Your task to perform on an android device: add a contact Image 0: 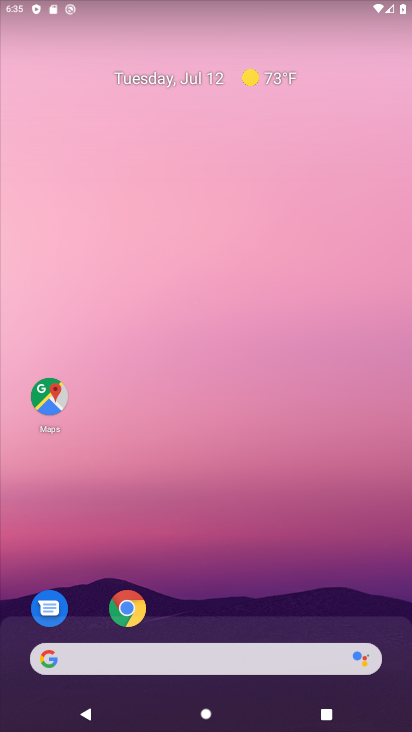
Step 0: drag from (189, 446) to (206, 145)
Your task to perform on an android device: add a contact Image 1: 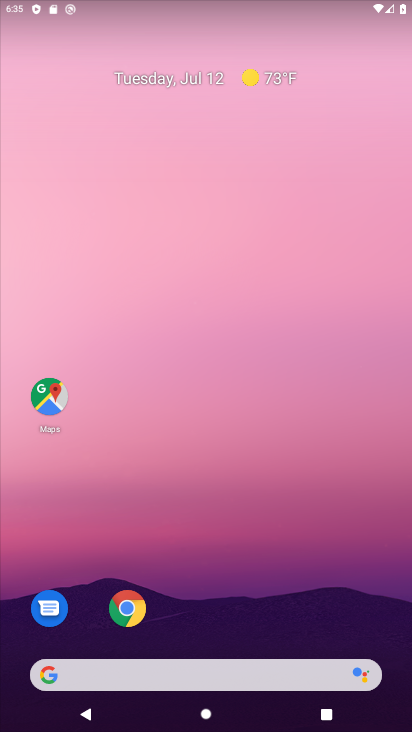
Step 1: drag from (187, 483) to (207, 101)
Your task to perform on an android device: add a contact Image 2: 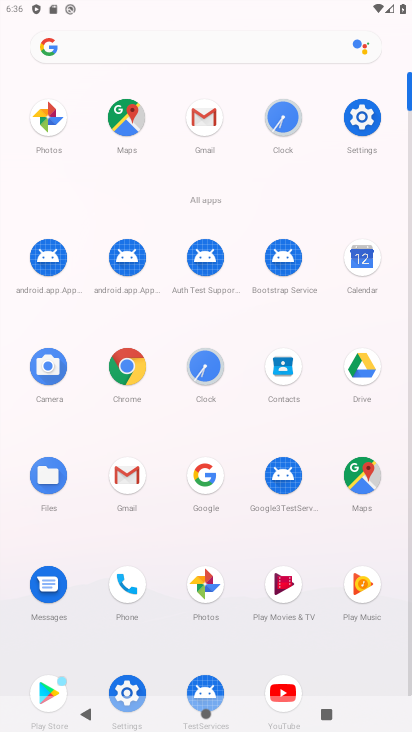
Step 2: click (276, 382)
Your task to perform on an android device: add a contact Image 3: 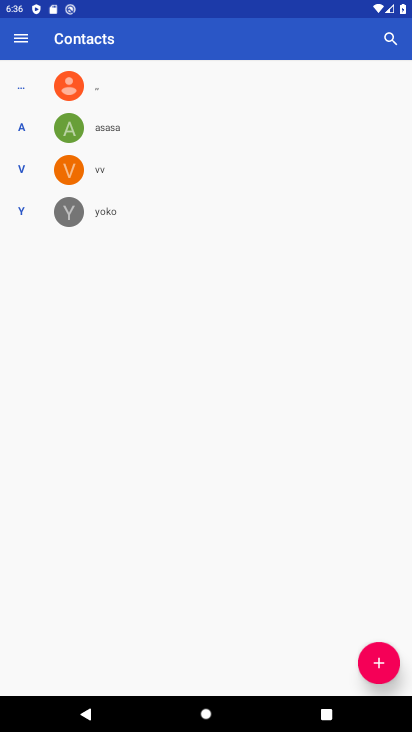
Step 3: click (382, 665)
Your task to perform on an android device: add a contact Image 4: 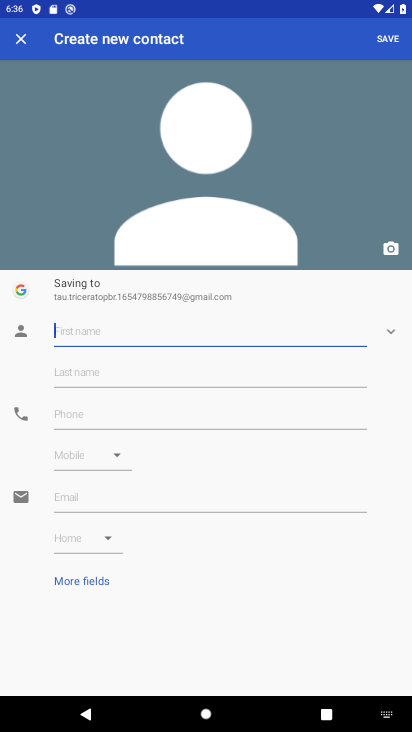
Step 4: type "Ravi"
Your task to perform on an android device: add a contact Image 5: 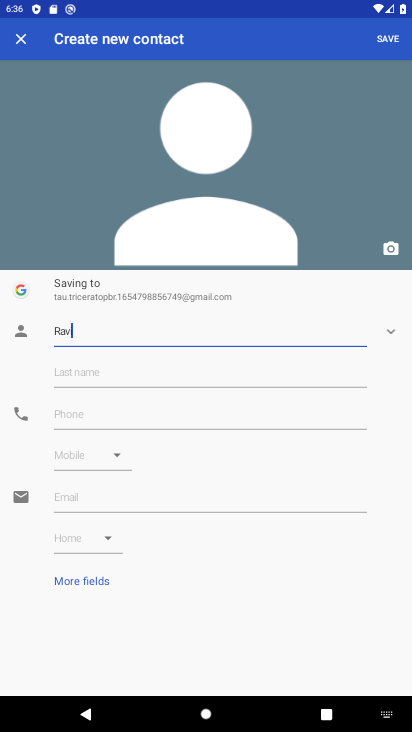
Step 5: click (233, 406)
Your task to perform on an android device: add a contact Image 6: 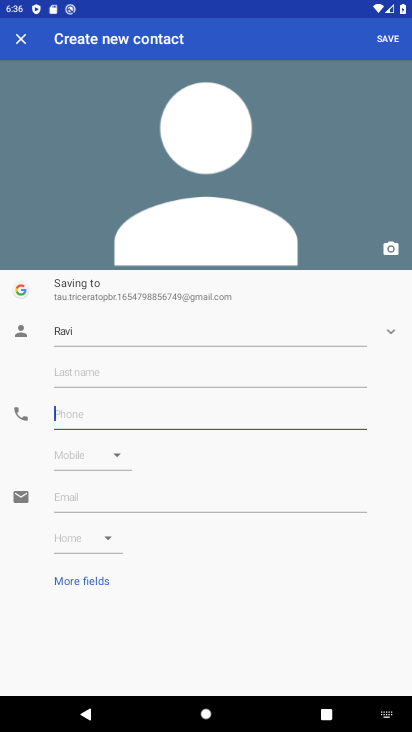
Step 6: type "9999000098"
Your task to perform on an android device: add a contact Image 7: 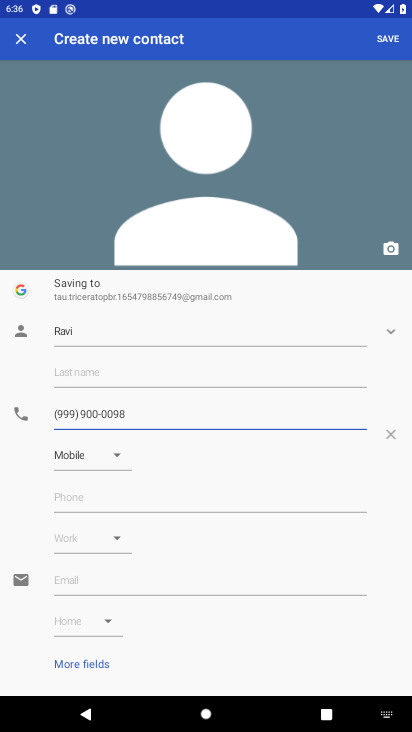
Step 7: click (390, 38)
Your task to perform on an android device: add a contact Image 8: 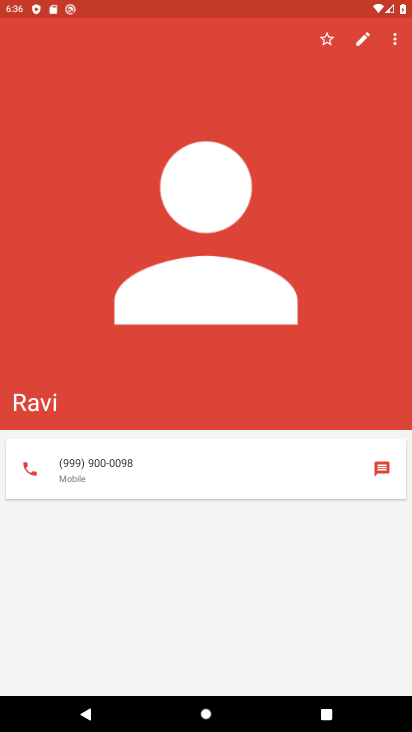
Step 8: task complete